Your task to perform on an android device: turn smart compose on in the gmail app Image 0: 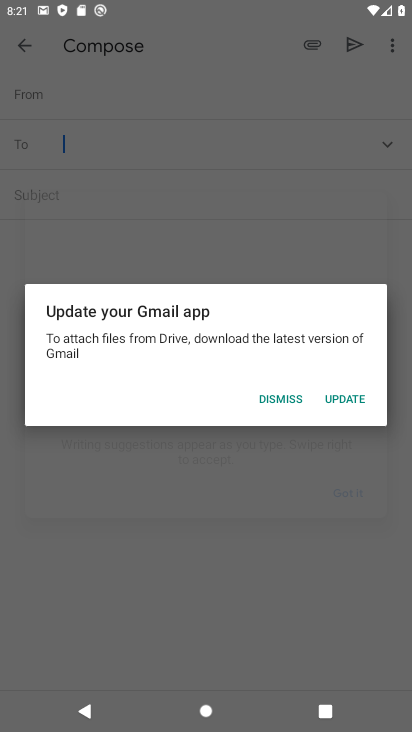
Step 0: press home button
Your task to perform on an android device: turn smart compose on in the gmail app Image 1: 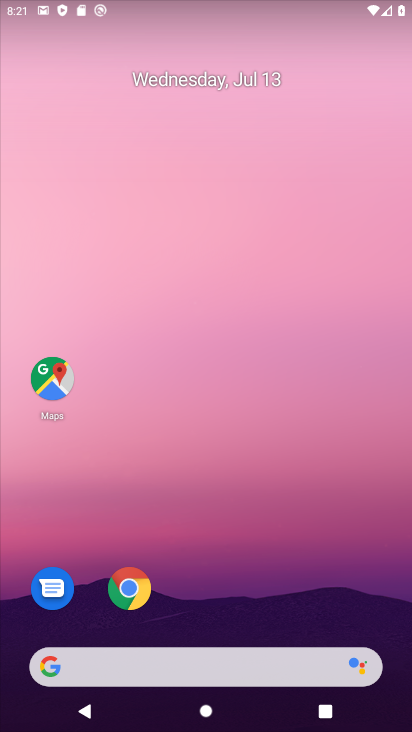
Step 1: drag from (204, 608) to (207, 298)
Your task to perform on an android device: turn smart compose on in the gmail app Image 2: 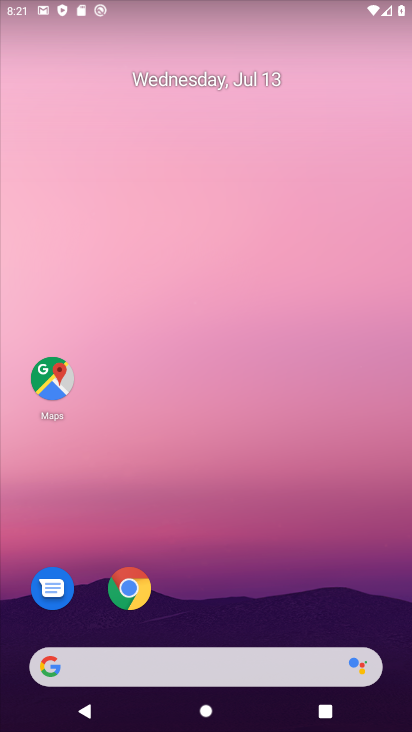
Step 2: drag from (220, 609) to (182, 111)
Your task to perform on an android device: turn smart compose on in the gmail app Image 3: 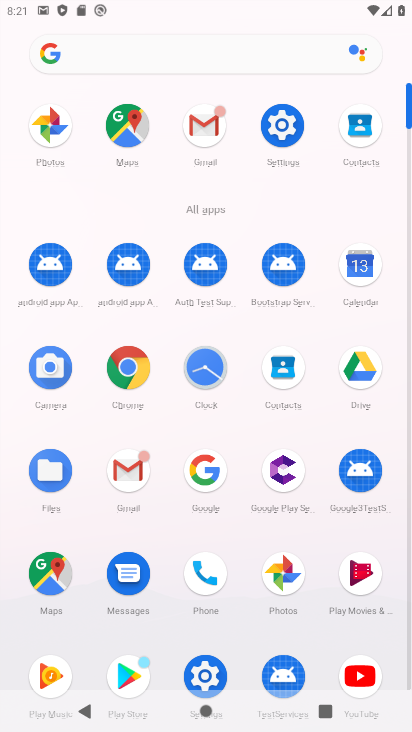
Step 3: click (207, 128)
Your task to perform on an android device: turn smart compose on in the gmail app Image 4: 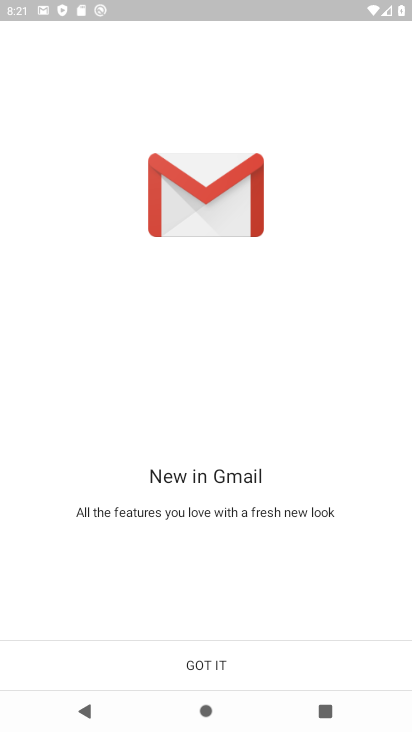
Step 4: click (226, 675)
Your task to perform on an android device: turn smart compose on in the gmail app Image 5: 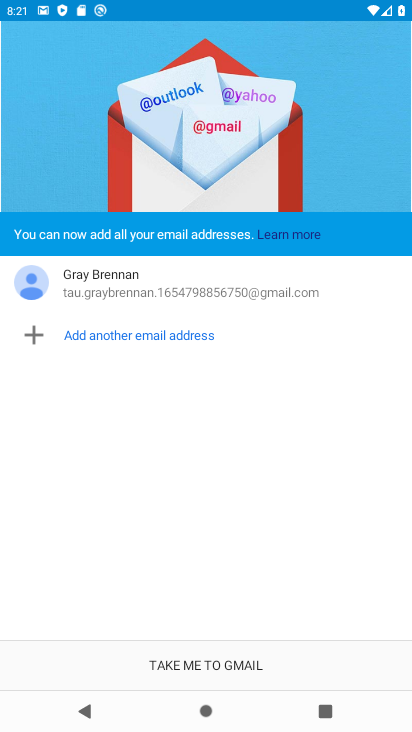
Step 5: click (226, 675)
Your task to perform on an android device: turn smart compose on in the gmail app Image 6: 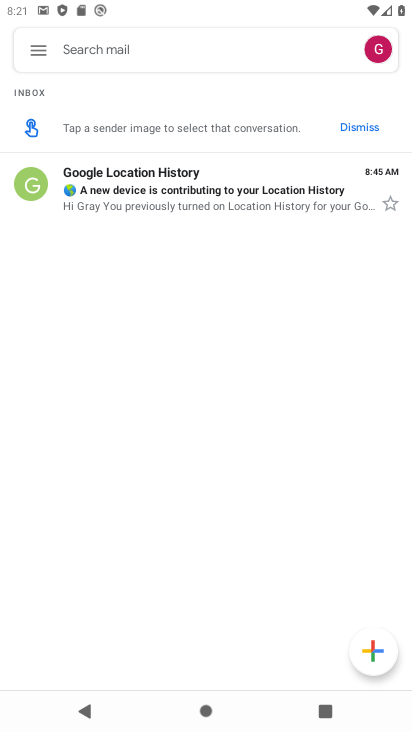
Step 6: click (40, 49)
Your task to perform on an android device: turn smart compose on in the gmail app Image 7: 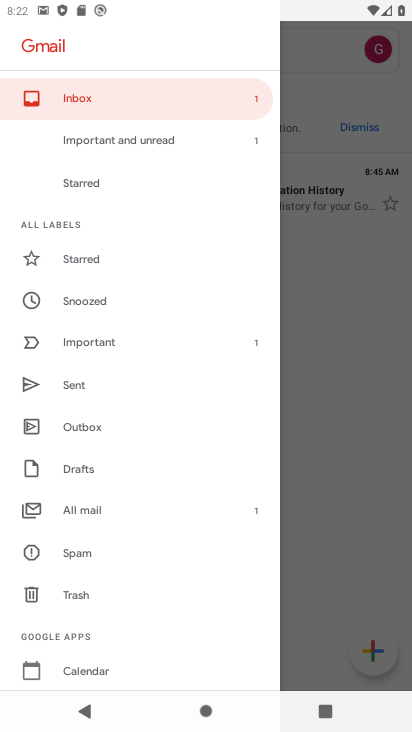
Step 7: drag from (153, 607) to (141, 246)
Your task to perform on an android device: turn smart compose on in the gmail app Image 8: 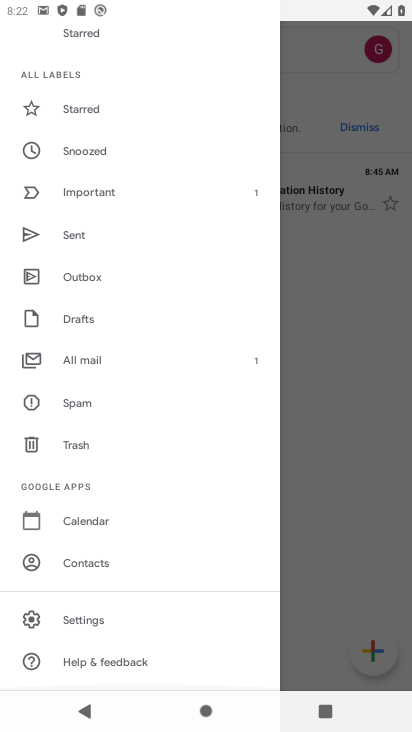
Step 8: click (77, 624)
Your task to perform on an android device: turn smart compose on in the gmail app Image 9: 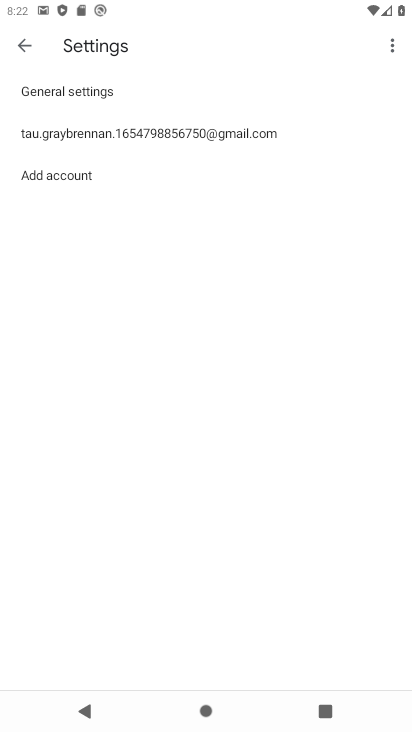
Step 9: click (107, 140)
Your task to perform on an android device: turn smart compose on in the gmail app Image 10: 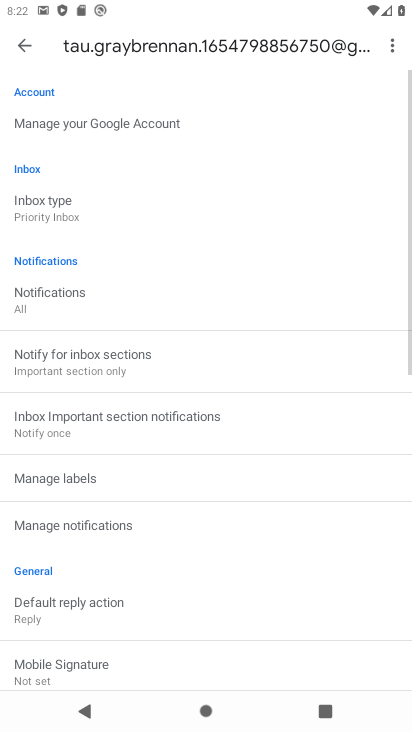
Step 10: task complete